Your task to perform on an android device: move a message to another label in the gmail app Image 0: 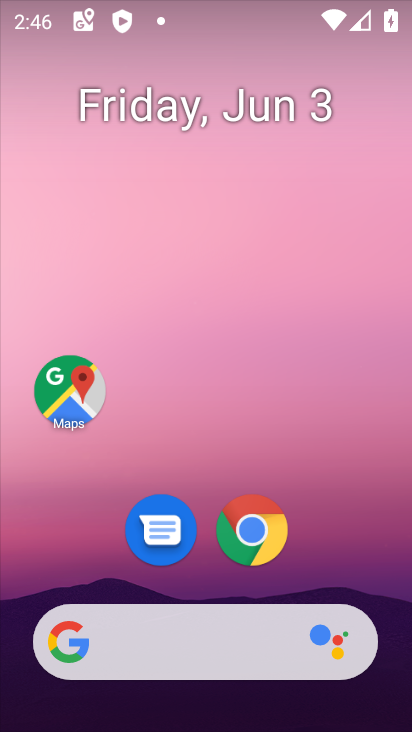
Step 0: drag from (358, 531) to (266, 64)
Your task to perform on an android device: move a message to another label in the gmail app Image 1: 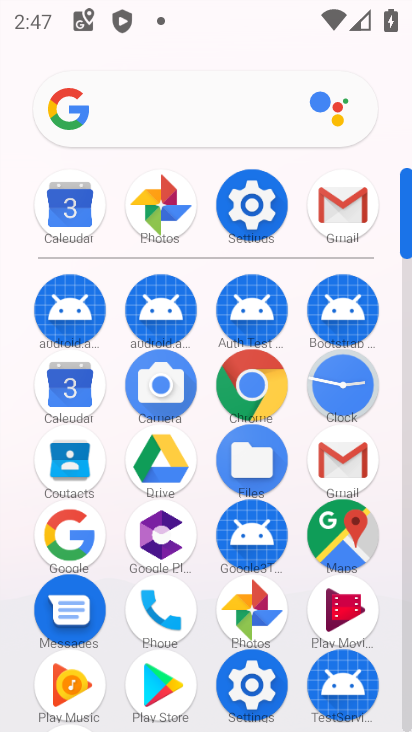
Step 1: click (336, 182)
Your task to perform on an android device: move a message to another label in the gmail app Image 2: 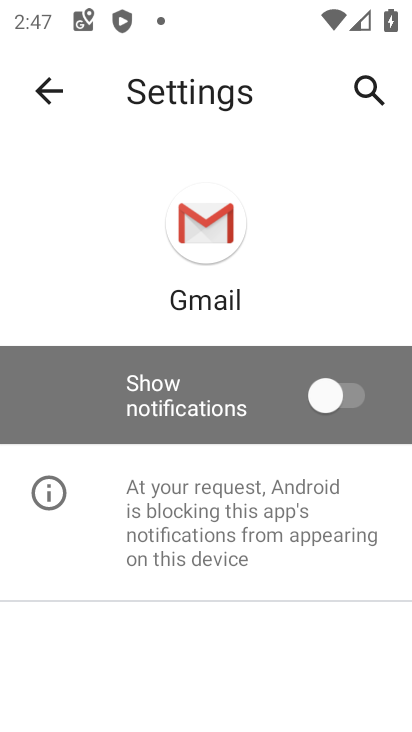
Step 2: click (56, 84)
Your task to perform on an android device: move a message to another label in the gmail app Image 3: 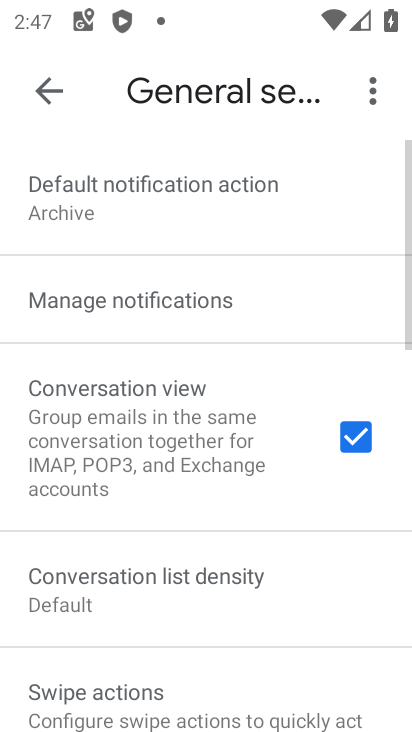
Step 3: click (45, 85)
Your task to perform on an android device: move a message to another label in the gmail app Image 4: 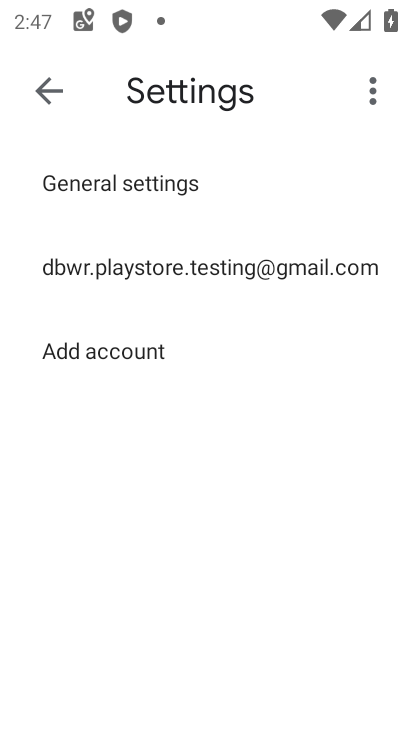
Step 4: click (47, 99)
Your task to perform on an android device: move a message to another label in the gmail app Image 5: 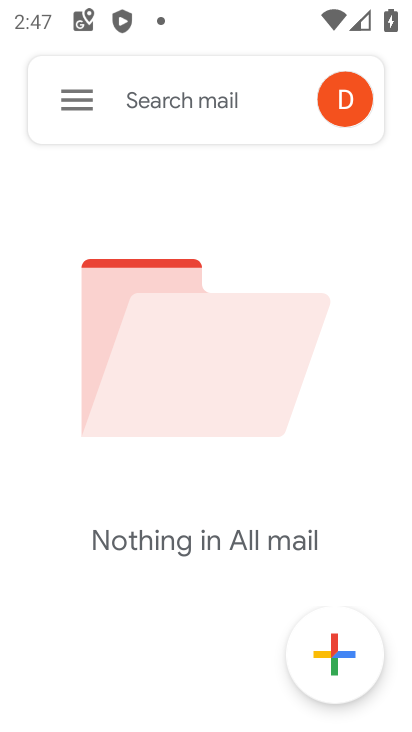
Step 5: click (62, 99)
Your task to perform on an android device: move a message to another label in the gmail app Image 6: 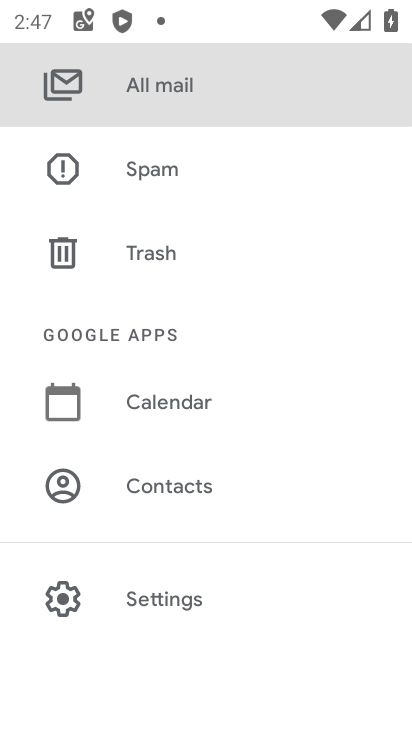
Step 6: task complete